Your task to perform on an android device: turn off javascript in the chrome app Image 0: 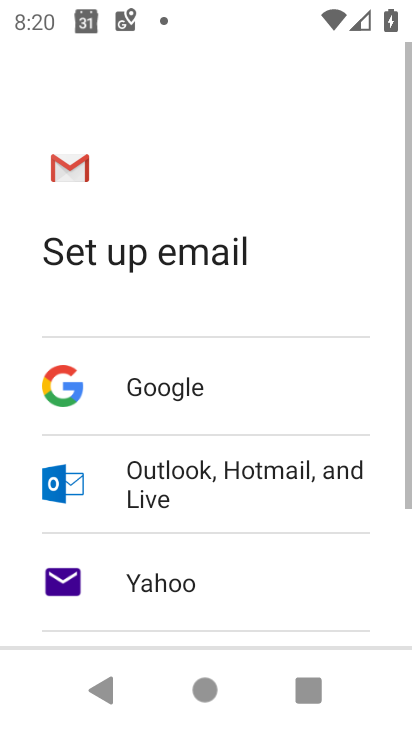
Step 0: press home button
Your task to perform on an android device: turn off javascript in the chrome app Image 1: 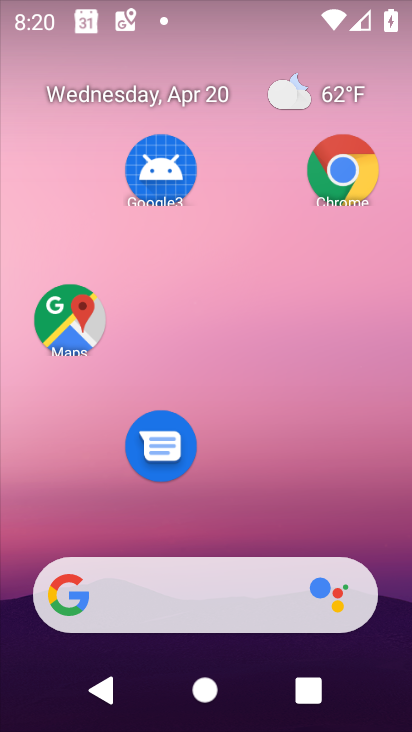
Step 1: click (340, 164)
Your task to perform on an android device: turn off javascript in the chrome app Image 2: 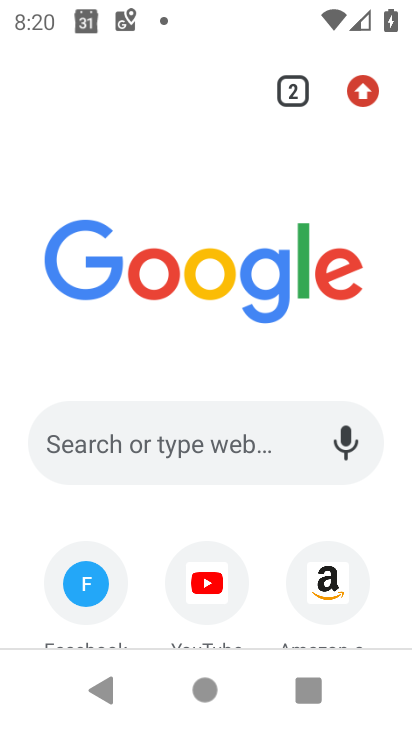
Step 2: click (364, 88)
Your task to perform on an android device: turn off javascript in the chrome app Image 3: 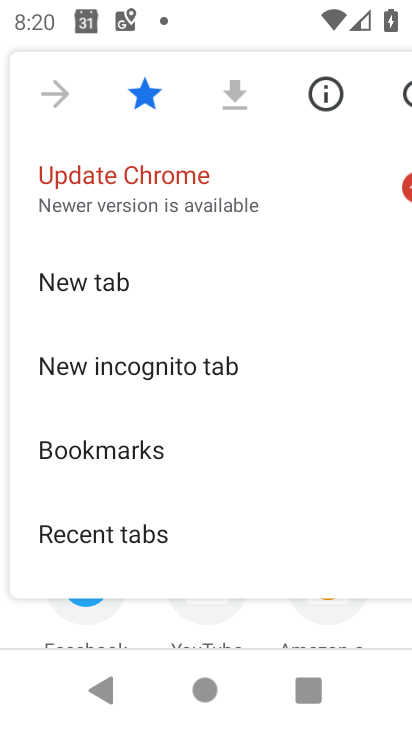
Step 3: drag from (211, 501) to (229, 25)
Your task to perform on an android device: turn off javascript in the chrome app Image 4: 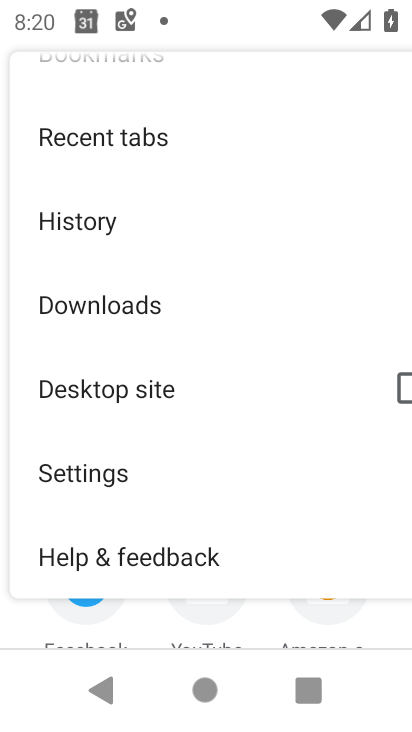
Step 4: click (100, 466)
Your task to perform on an android device: turn off javascript in the chrome app Image 5: 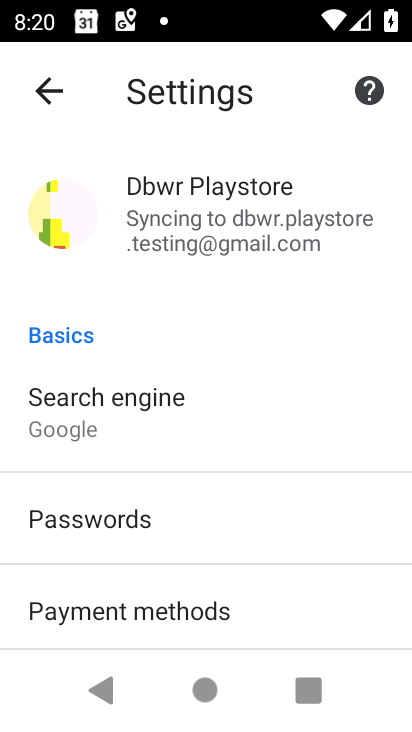
Step 5: drag from (242, 547) to (244, 26)
Your task to perform on an android device: turn off javascript in the chrome app Image 6: 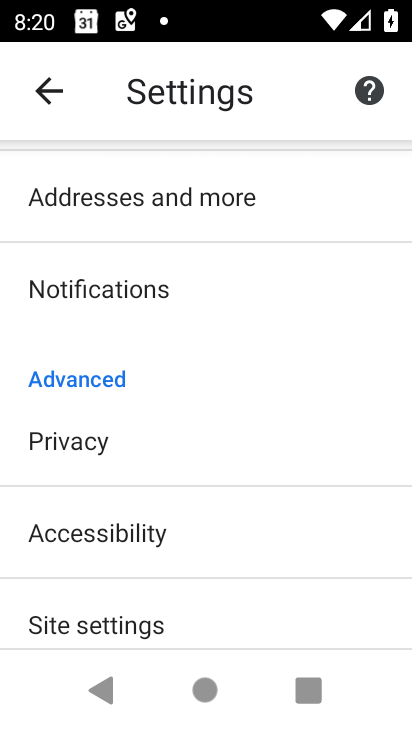
Step 6: drag from (206, 576) to (212, 240)
Your task to perform on an android device: turn off javascript in the chrome app Image 7: 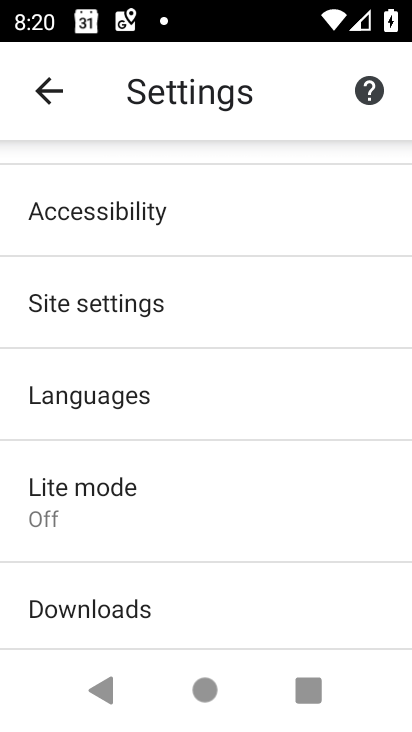
Step 7: click (108, 293)
Your task to perform on an android device: turn off javascript in the chrome app Image 8: 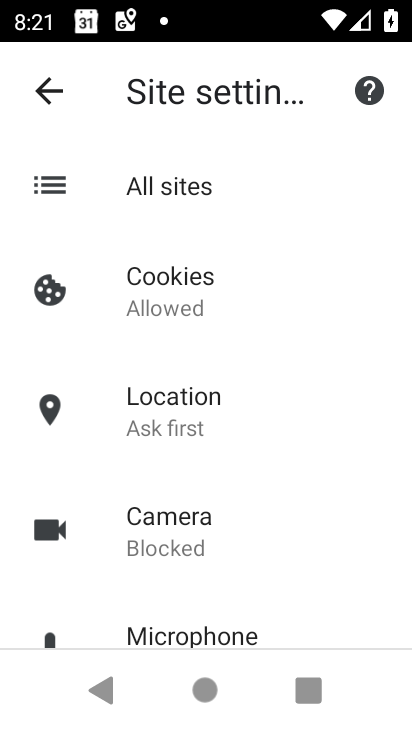
Step 8: drag from (295, 570) to (291, 187)
Your task to perform on an android device: turn off javascript in the chrome app Image 9: 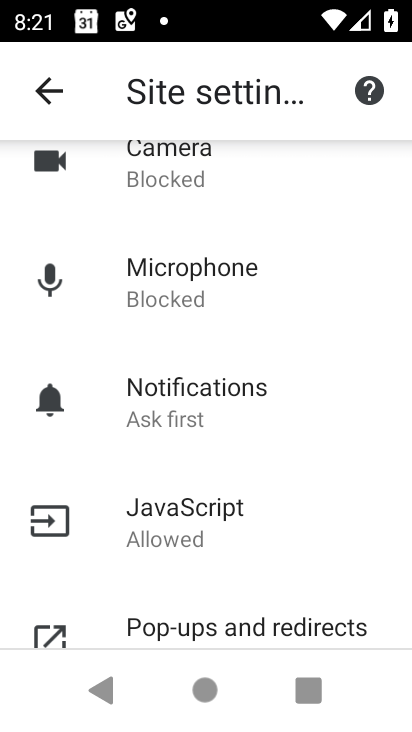
Step 9: click (174, 511)
Your task to perform on an android device: turn off javascript in the chrome app Image 10: 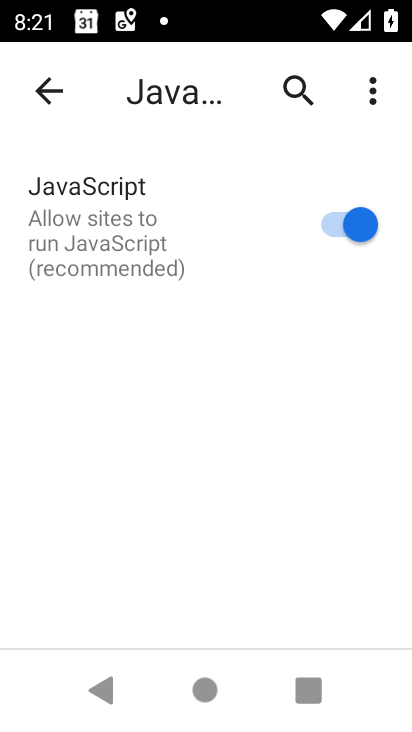
Step 10: click (358, 240)
Your task to perform on an android device: turn off javascript in the chrome app Image 11: 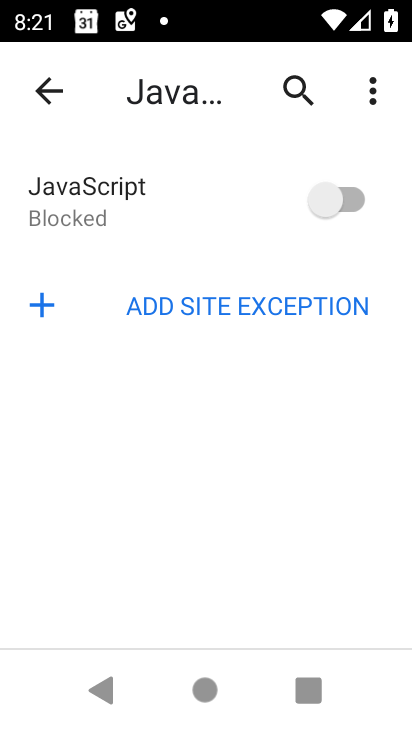
Step 11: task complete